Your task to perform on an android device: turn vacation reply on in the gmail app Image 0: 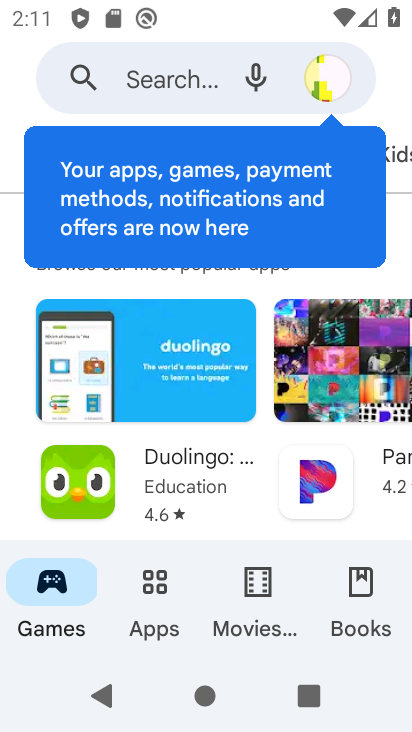
Step 0: press home button
Your task to perform on an android device: turn vacation reply on in the gmail app Image 1: 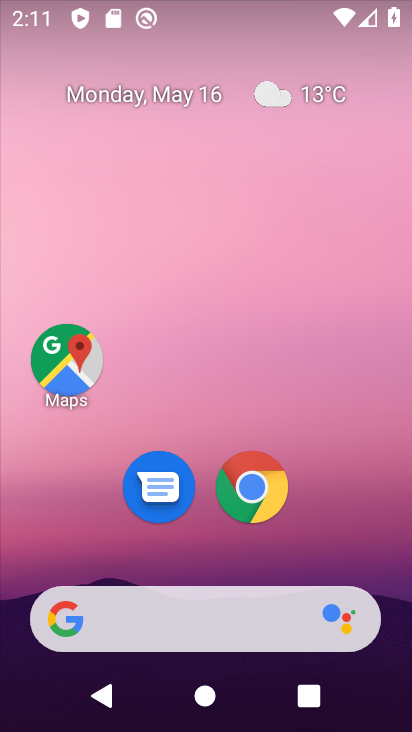
Step 1: drag from (326, 476) to (32, 62)
Your task to perform on an android device: turn vacation reply on in the gmail app Image 2: 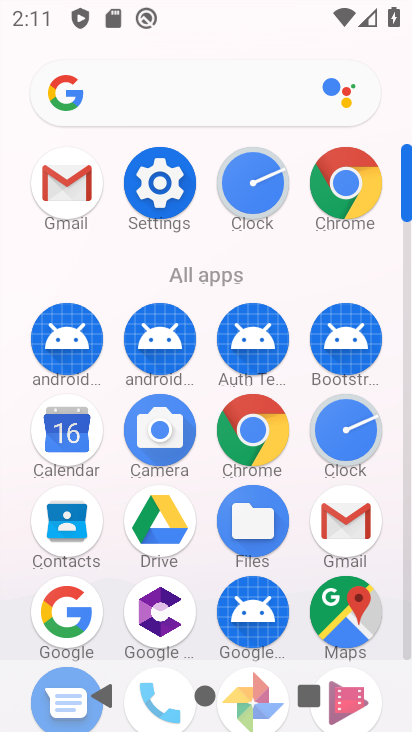
Step 2: click (344, 521)
Your task to perform on an android device: turn vacation reply on in the gmail app Image 3: 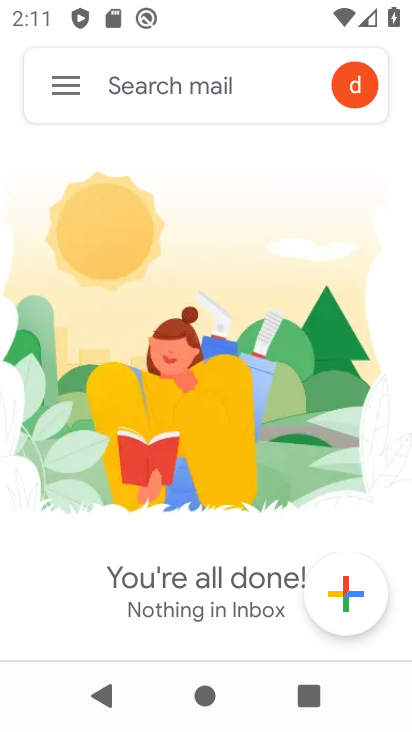
Step 3: click (70, 90)
Your task to perform on an android device: turn vacation reply on in the gmail app Image 4: 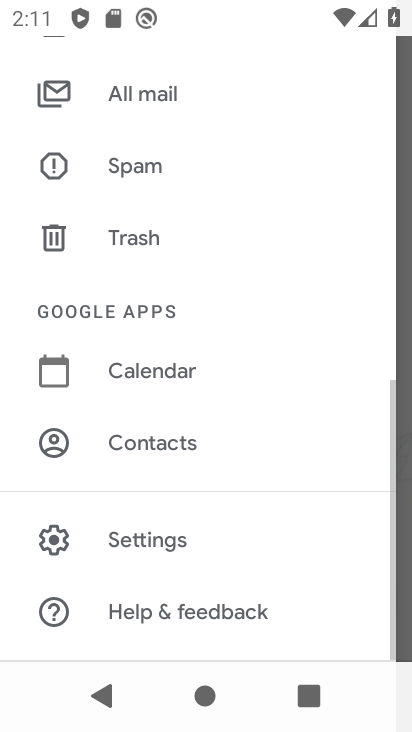
Step 4: drag from (307, 168) to (288, 586)
Your task to perform on an android device: turn vacation reply on in the gmail app Image 5: 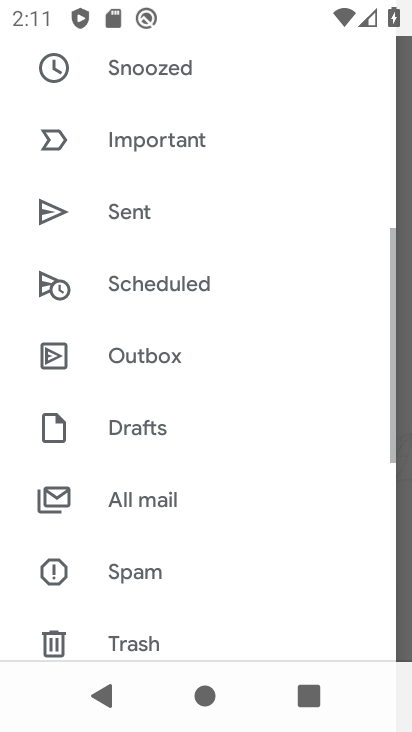
Step 5: drag from (292, 162) to (271, 61)
Your task to perform on an android device: turn vacation reply on in the gmail app Image 6: 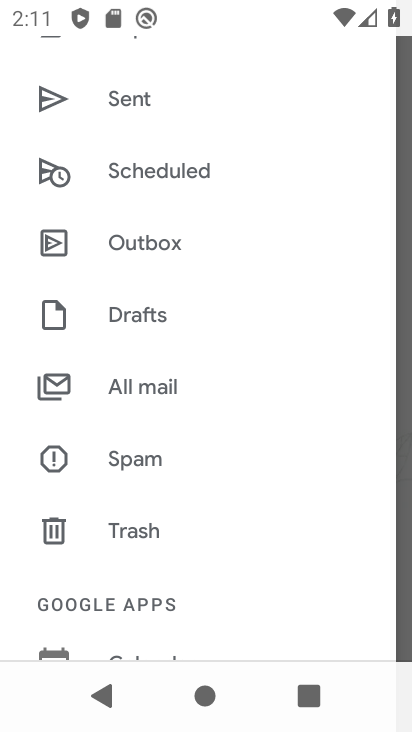
Step 6: drag from (200, 596) to (199, 159)
Your task to perform on an android device: turn vacation reply on in the gmail app Image 7: 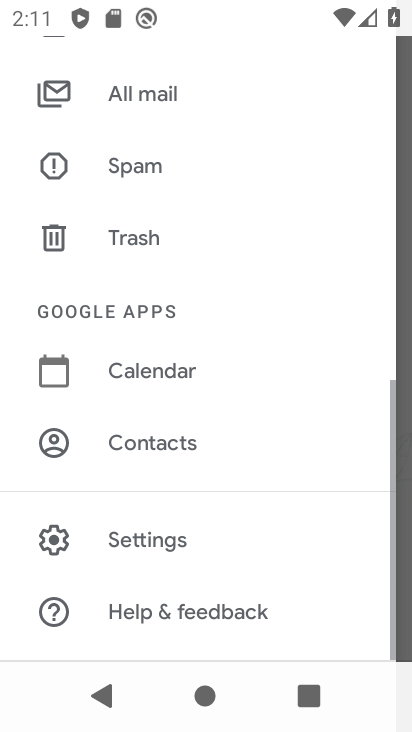
Step 7: click (140, 545)
Your task to perform on an android device: turn vacation reply on in the gmail app Image 8: 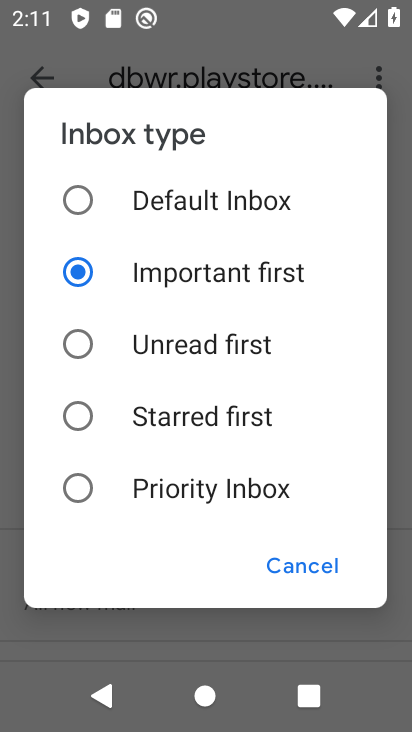
Step 8: click (312, 562)
Your task to perform on an android device: turn vacation reply on in the gmail app Image 9: 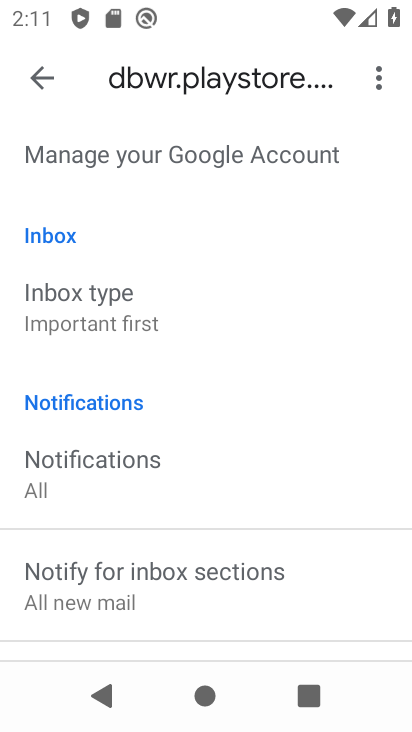
Step 9: drag from (142, 597) to (118, 189)
Your task to perform on an android device: turn vacation reply on in the gmail app Image 10: 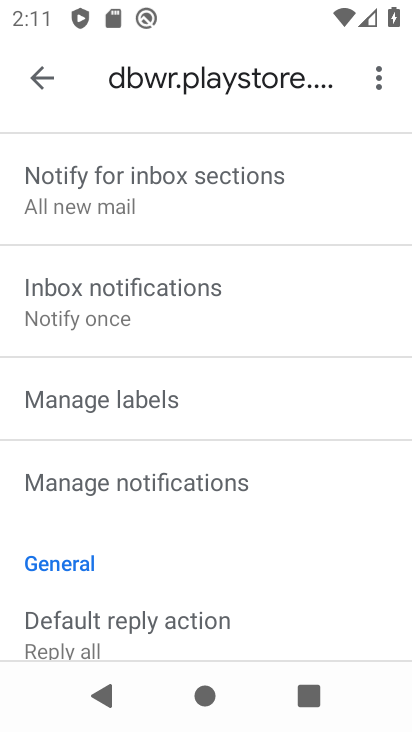
Step 10: drag from (215, 570) to (252, 192)
Your task to perform on an android device: turn vacation reply on in the gmail app Image 11: 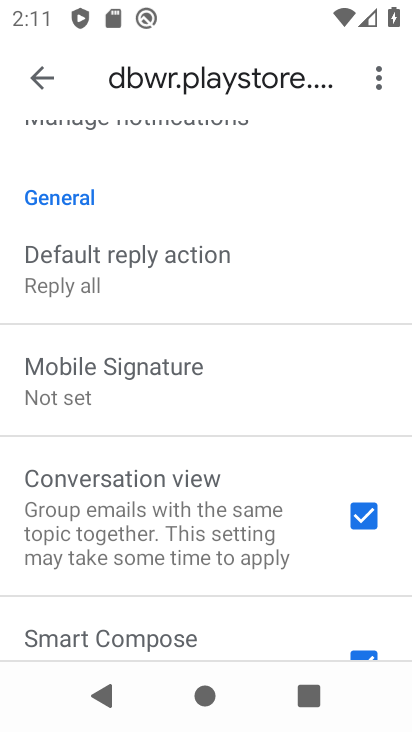
Step 11: drag from (173, 614) to (183, 170)
Your task to perform on an android device: turn vacation reply on in the gmail app Image 12: 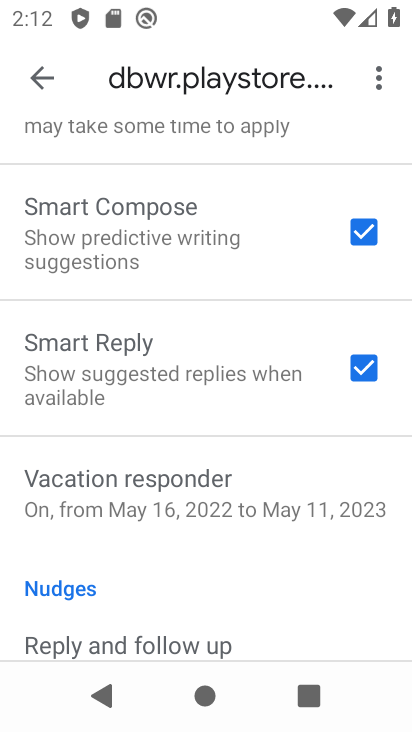
Step 12: click (88, 508)
Your task to perform on an android device: turn vacation reply on in the gmail app Image 13: 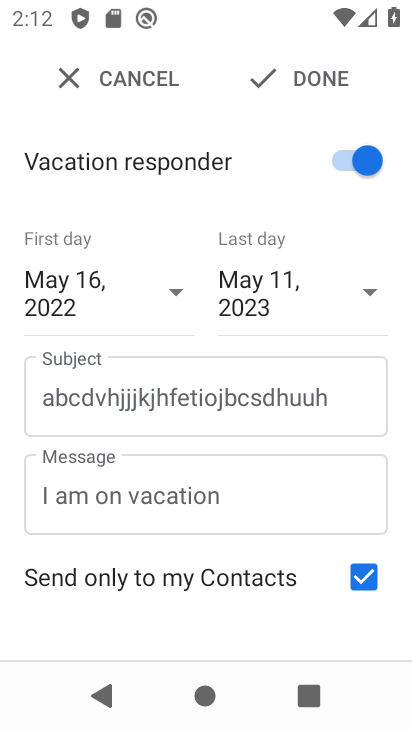
Step 13: task complete